Your task to perform on an android device: Open Google Maps Image 0: 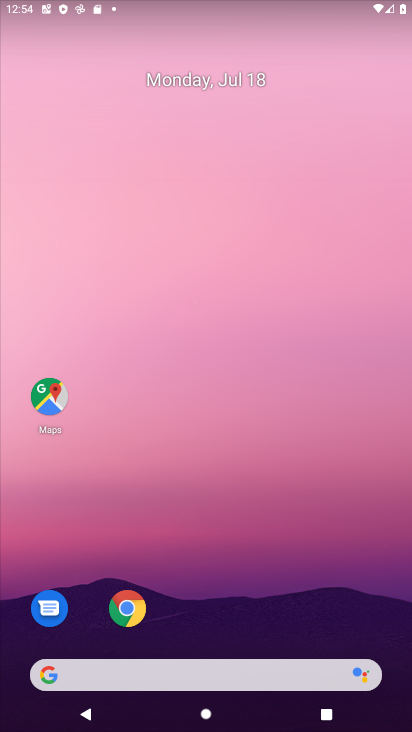
Step 0: drag from (321, 465) to (206, 51)
Your task to perform on an android device: Open Google Maps Image 1: 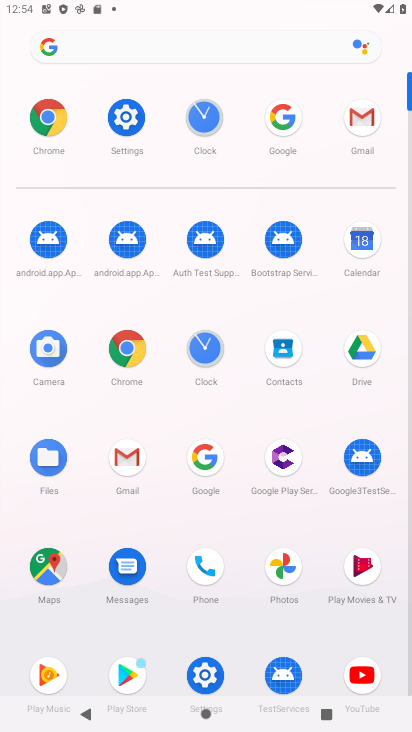
Step 1: click (36, 552)
Your task to perform on an android device: Open Google Maps Image 2: 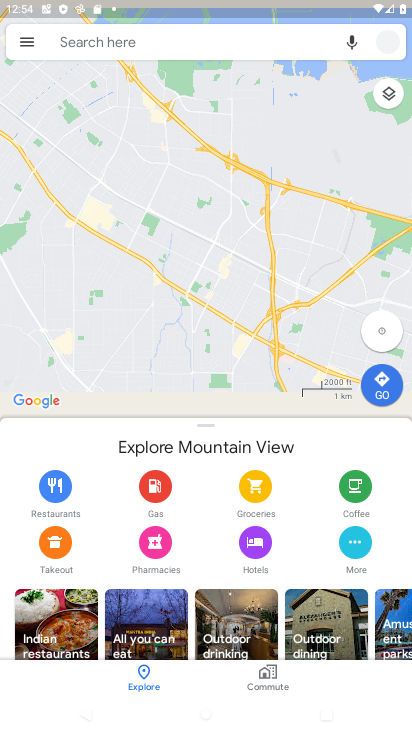
Step 2: task complete